Your task to perform on an android device: When is my next appointment? Image 0: 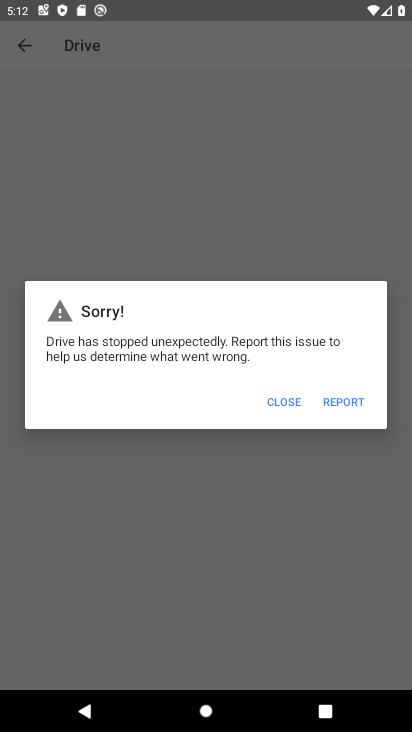
Step 0: press home button
Your task to perform on an android device: When is my next appointment? Image 1: 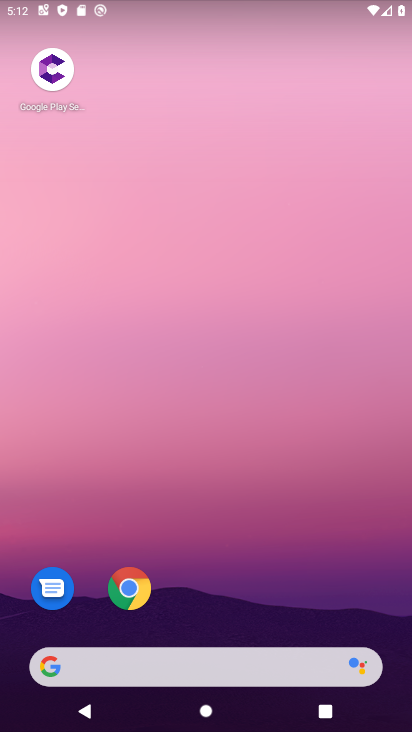
Step 1: drag from (173, 603) to (173, 215)
Your task to perform on an android device: When is my next appointment? Image 2: 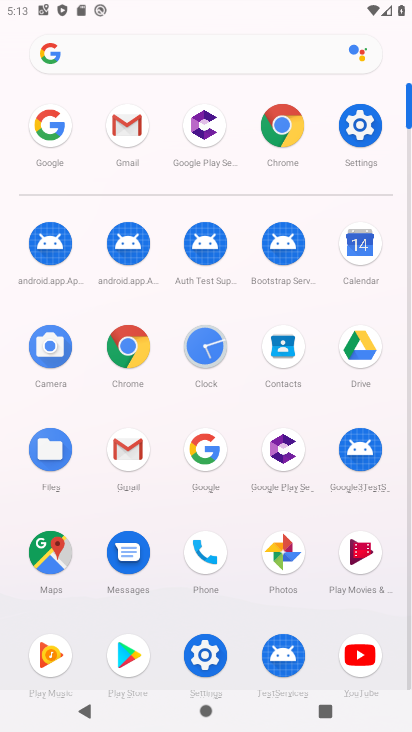
Step 2: click (356, 246)
Your task to perform on an android device: When is my next appointment? Image 3: 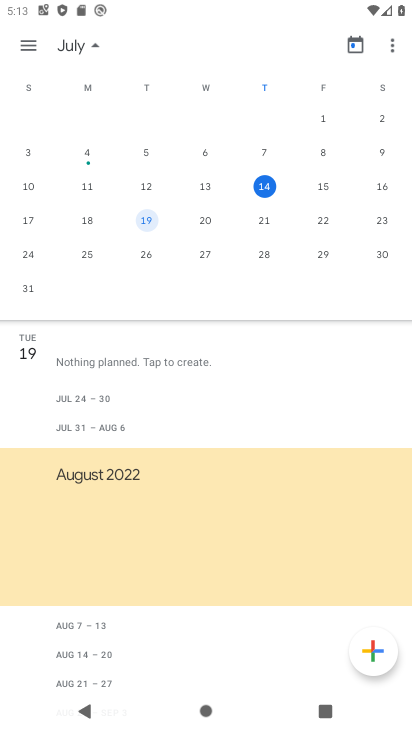
Step 3: click (316, 183)
Your task to perform on an android device: When is my next appointment? Image 4: 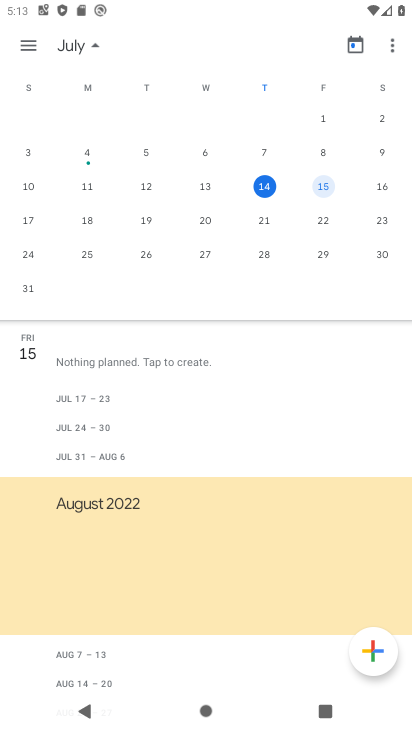
Step 4: click (145, 223)
Your task to perform on an android device: When is my next appointment? Image 5: 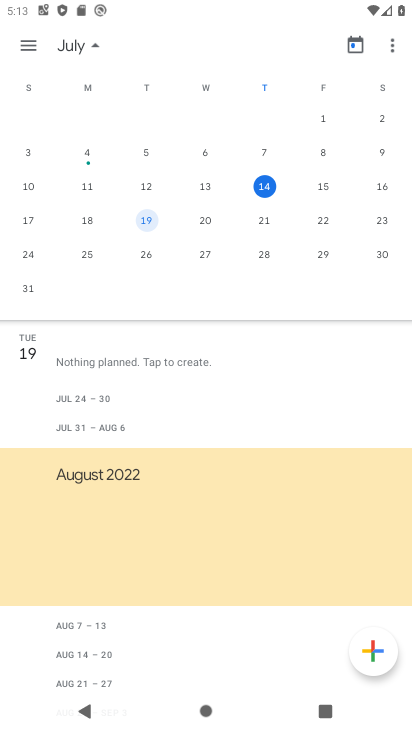
Step 5: click (144, 217)
Your task to perform on an android device: When is my next appointment? Image 6: 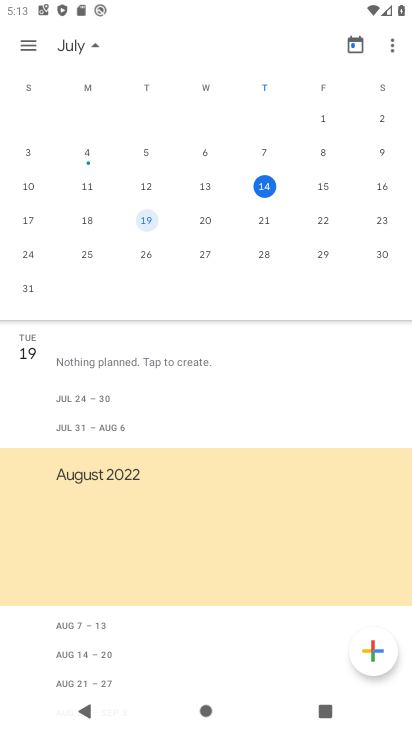
Step 6: task complete